Your task to perform on an android device: open wifi settings Image 0: 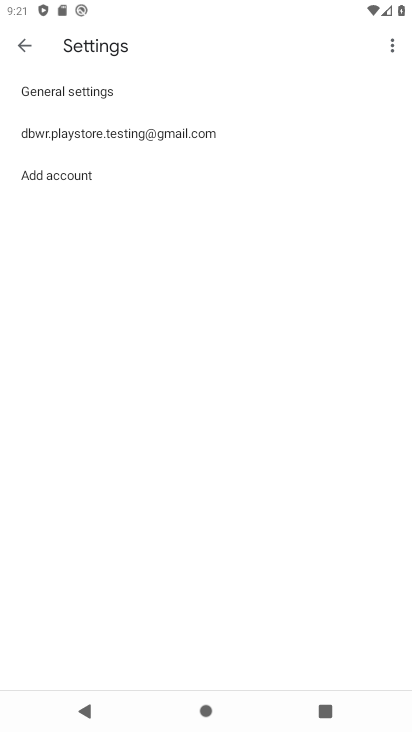
Step 0: press home button
Your task to perform on an android device: open wifi settings Image 1: 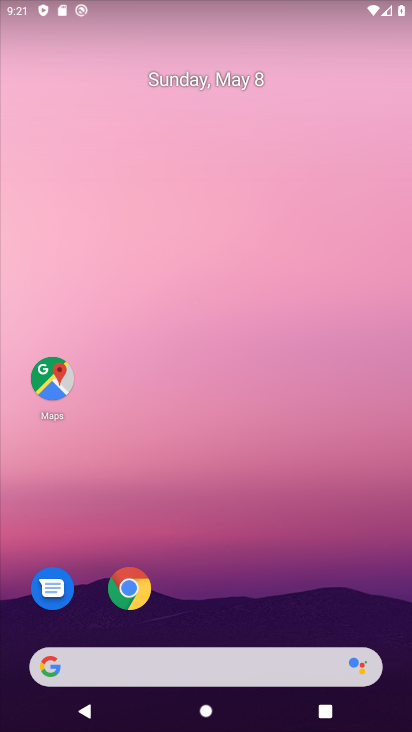
Step 1: drag from (215, 642) to (245, 257)
Your task to perform on an android device: open wifi settings Image 2: 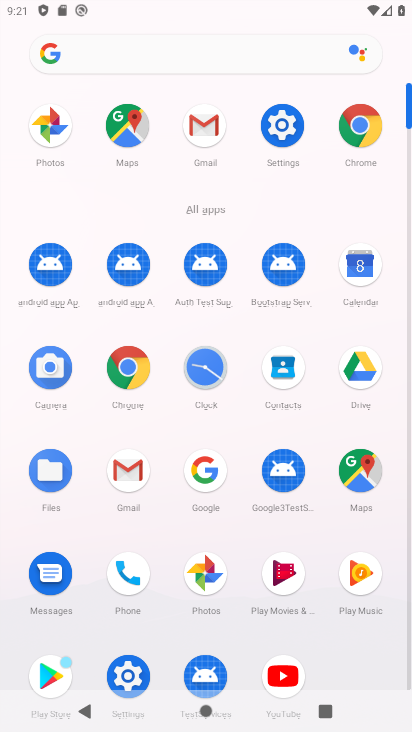
Step 2: click (144, 672)
Your task to perform on an android device: open wifi settings Image 3: 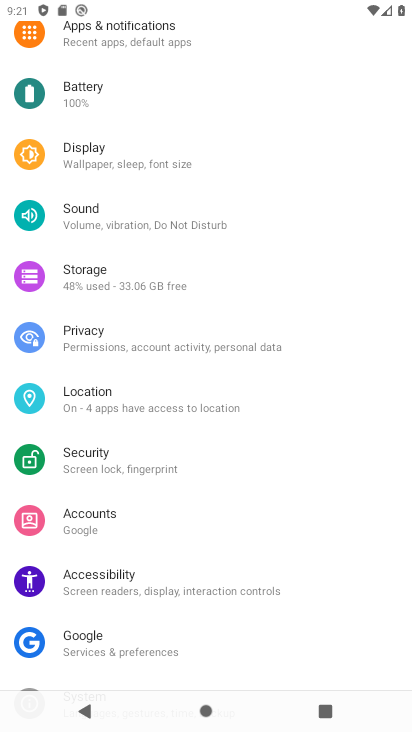
Step 3: drag from (316, 55) to (315, 571)
Your task to perform on an android device: open wifi settings Image 4: 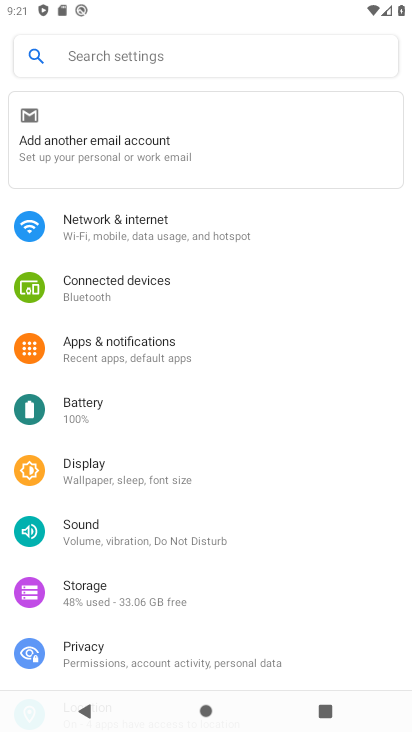
Step 4: click (250, 232)
Your task to perform on an android device: open wifi settings Image 5: 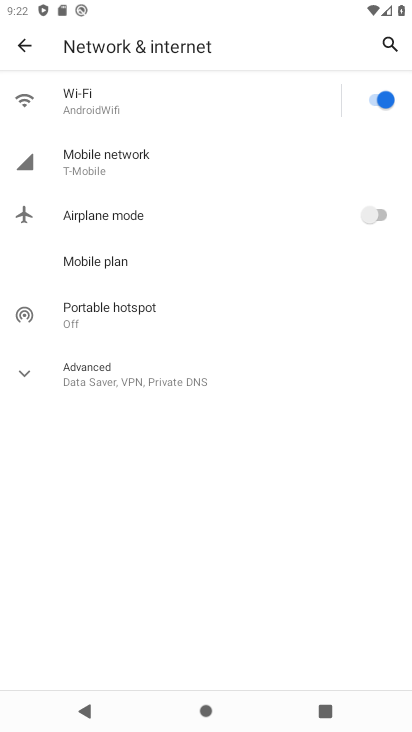
Step 5: click (223, 110)
Your task to perform on an android device: open wifi settings Image 6: 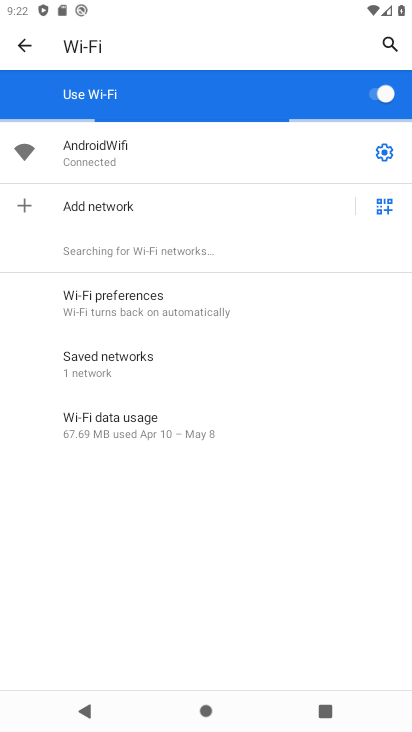
Step 6: task complete